Your task to perform on an android device: Open Youtube and go to the subscriptions tab Image 0: 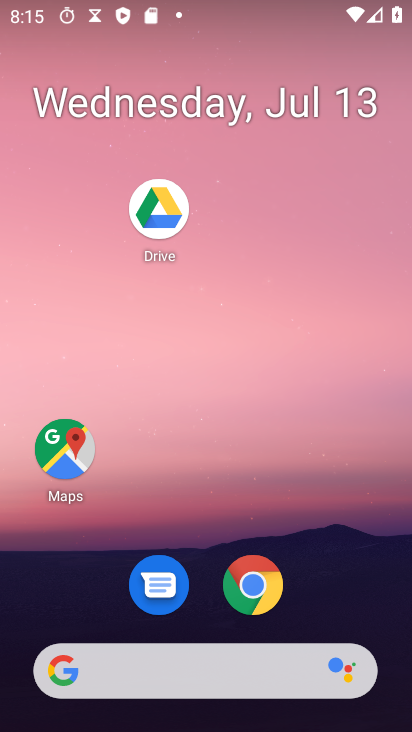
Step 0: drag from (162, 660) to (288, 73)
Your task to perform on an android device: Open Youtube and go to the subscriptions tab Image 1: 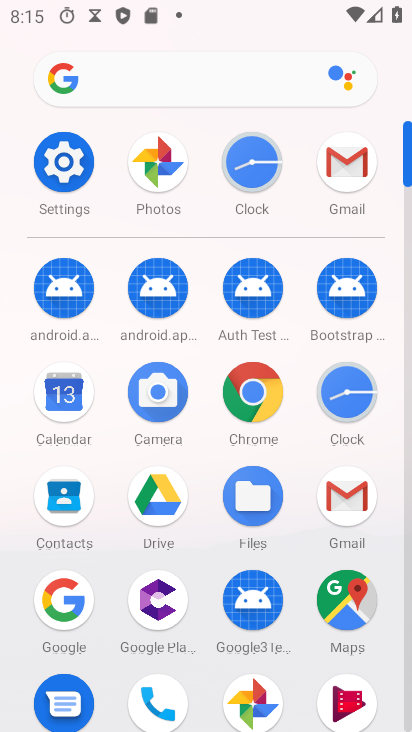
Step 1: drag from (208, 660) to (359, 181)
Your task to perform on an android device: Open Youtube and go to the subscriptions tab Image 2: 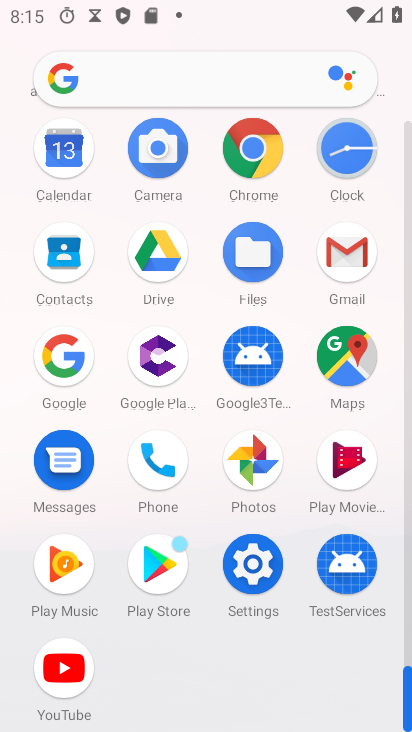
Step 2: click (70, 671)
Your task to perform on an android device: Open Youtube and go to the subscriptions tab Image 3: 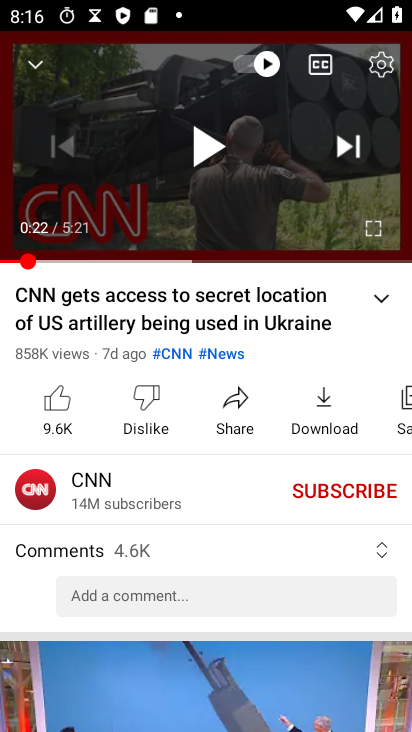
Step 3: press back button
Your task to perform on an android device: Open Youtube and go to the subscriptions tab Image 4: 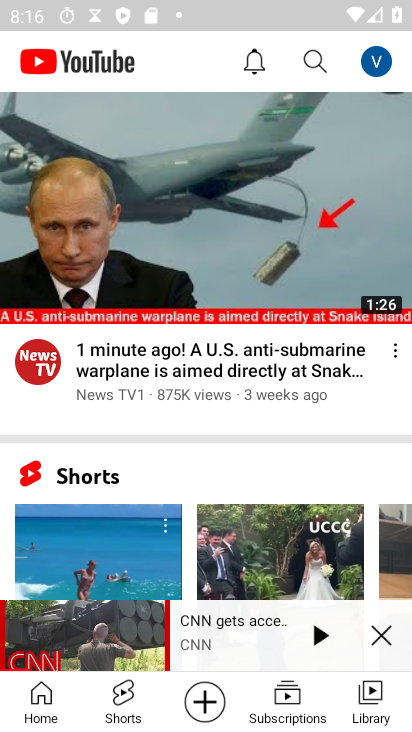
Step 4: click (286, 694)
Your task to perform on an android device: Open Youtube and go to the subscriptions tab Image 5: 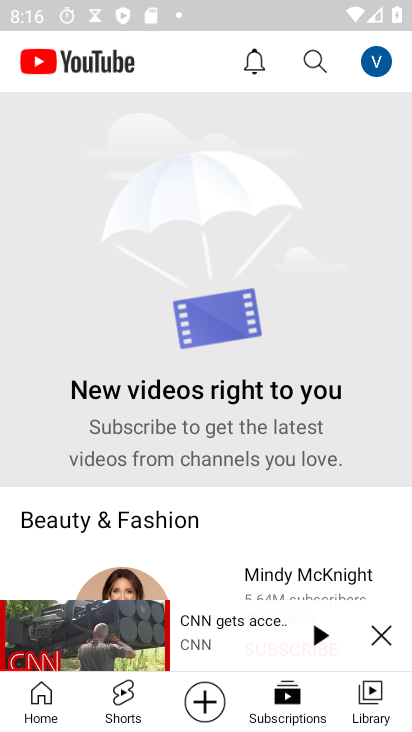
Step 5: click (385, 632)
Your task to perform on an android device: Open Youtube and go to the subscriptions tab Image 6: 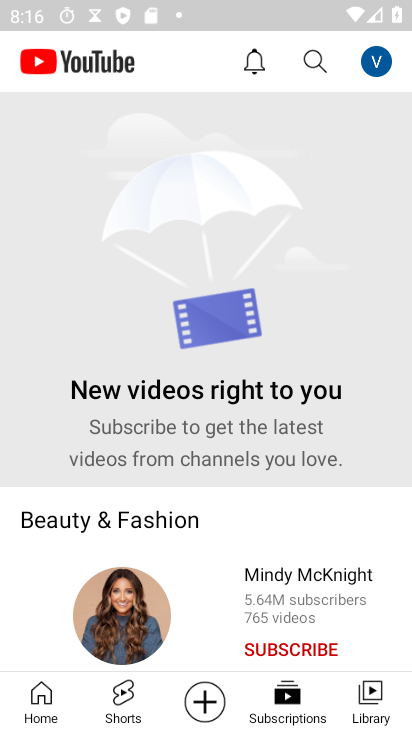
Step 6: task complete